Your task to perform on an android device: Show me popular videos on Youtube Image 0: 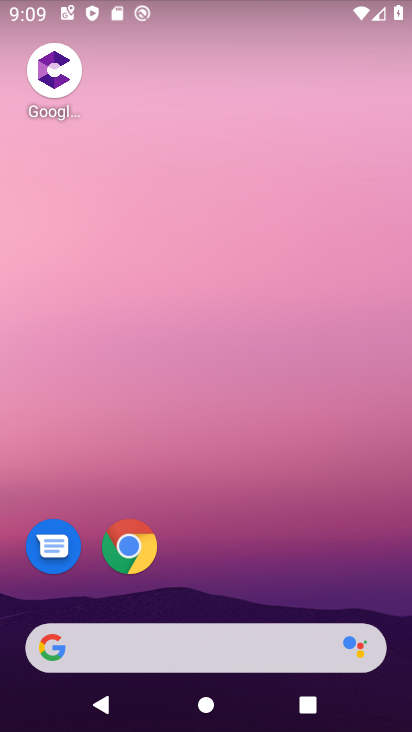
Step 0: drag from (298, 143) to (302, 59)
Your task to perform on an android device: Show me popular videos on Youtube Image 1: 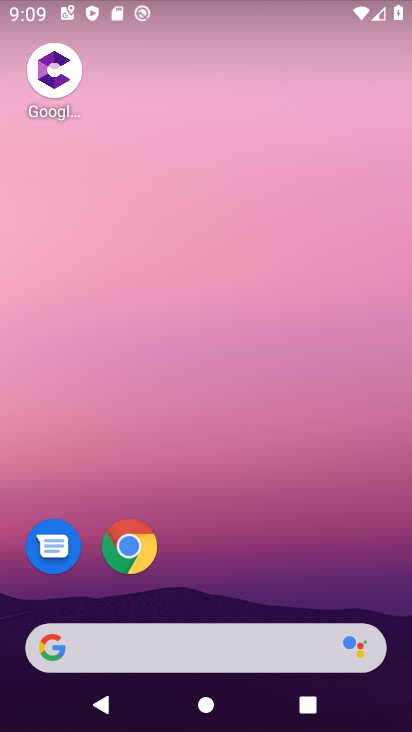
Step 1: drag from (195, 606) to (256, 97)
Your task to perform on an android device: Show me popular videos on Youtube Image 2: 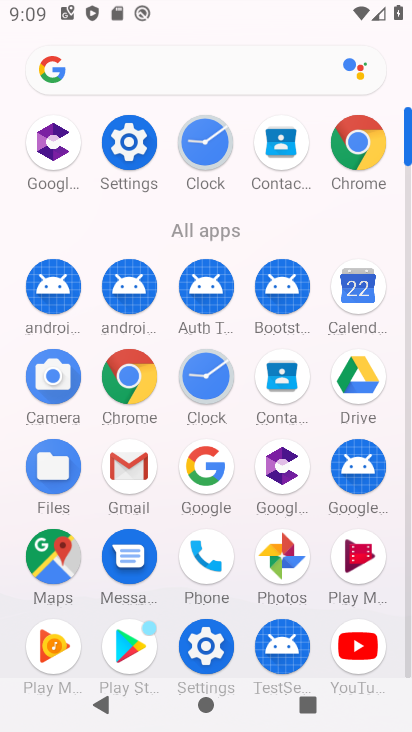
Step 2: click (363, 649)
Your task to perform on an android device: Show me popular videos on Youtube Image 3: 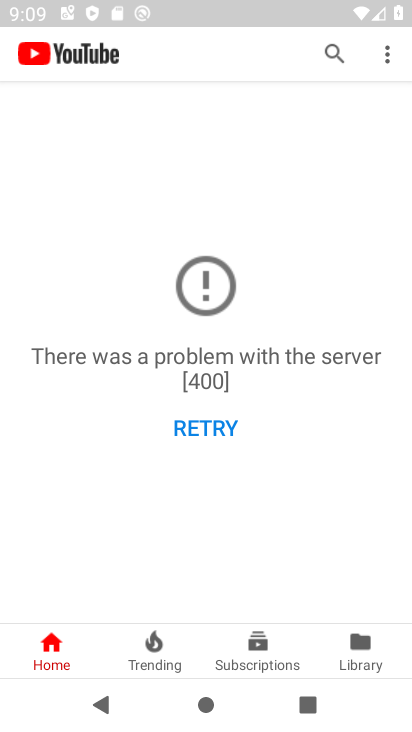
Step 3: click (188, 423)
Your task to perform on an android device: Show me popular videos on Youtube Image 4: 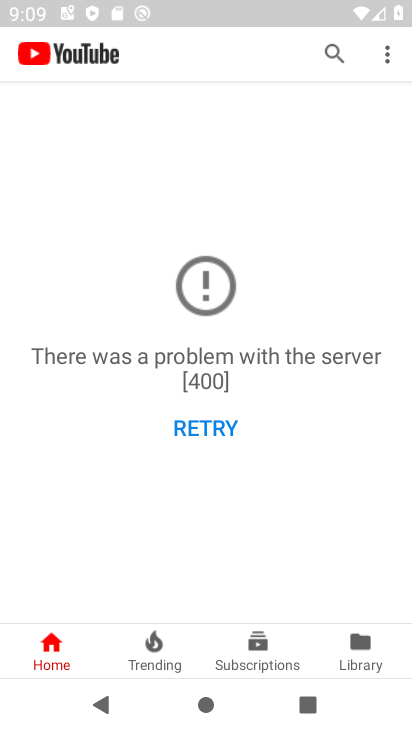
Step 4: task complete